Your task to perform on an android device: What's the news in Taiwan? Image 0: 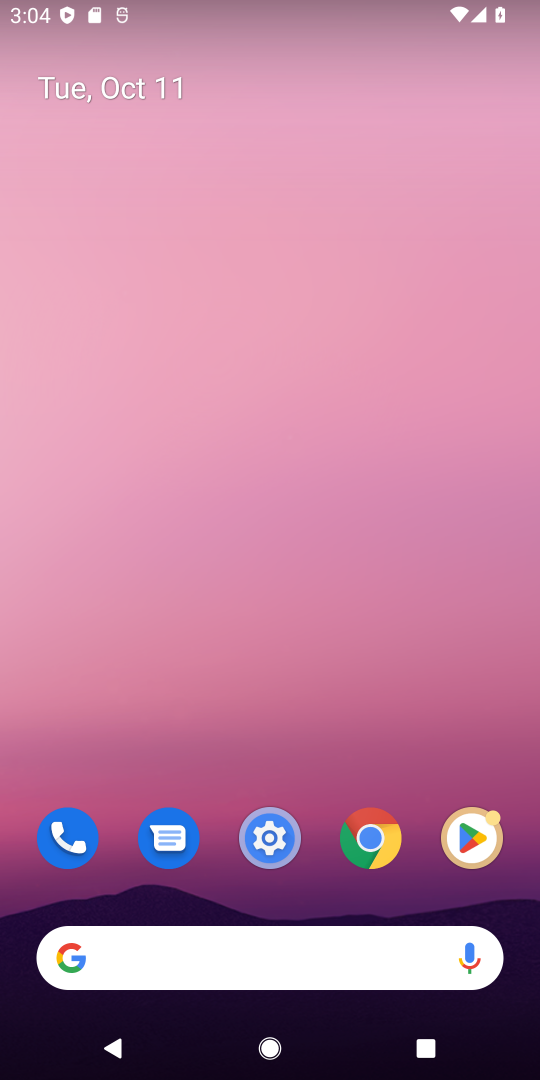
Step 0: click (253, 945)
Your task to perform on an android device: What's the news in Taiwan? Image 1: 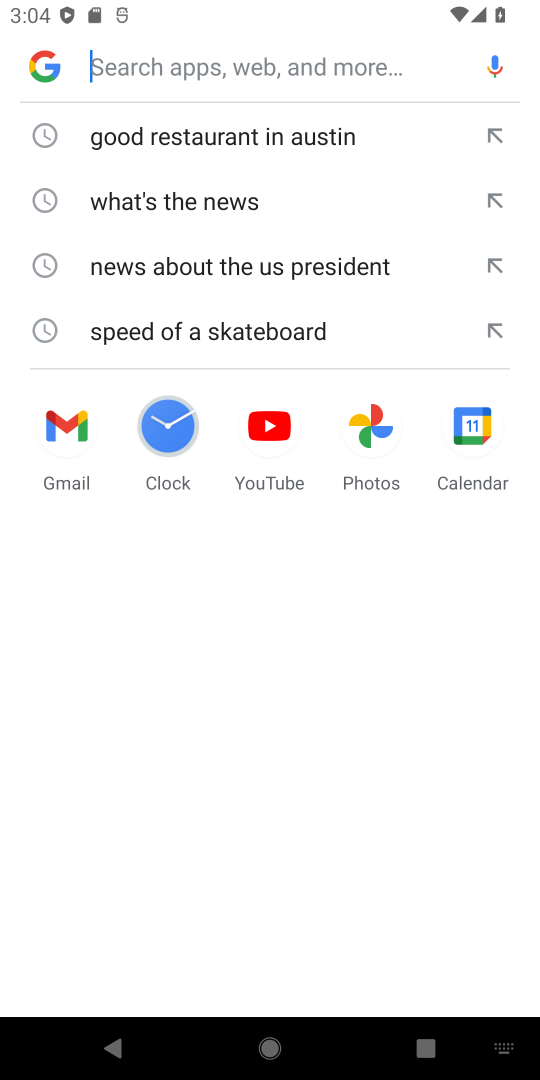
Step 1: type "news in Taiwan"
Your task to perform on an android device: What's the news in Taiwan? Image 2: 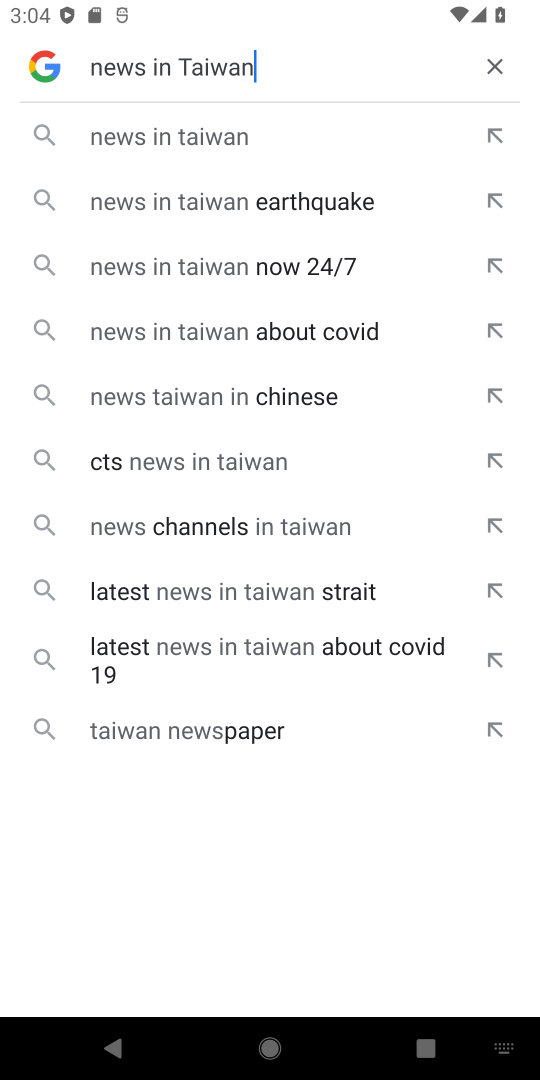
Step 2: type ""
Your task to perform on an android device: What's the news in Taiwan? Image 3: 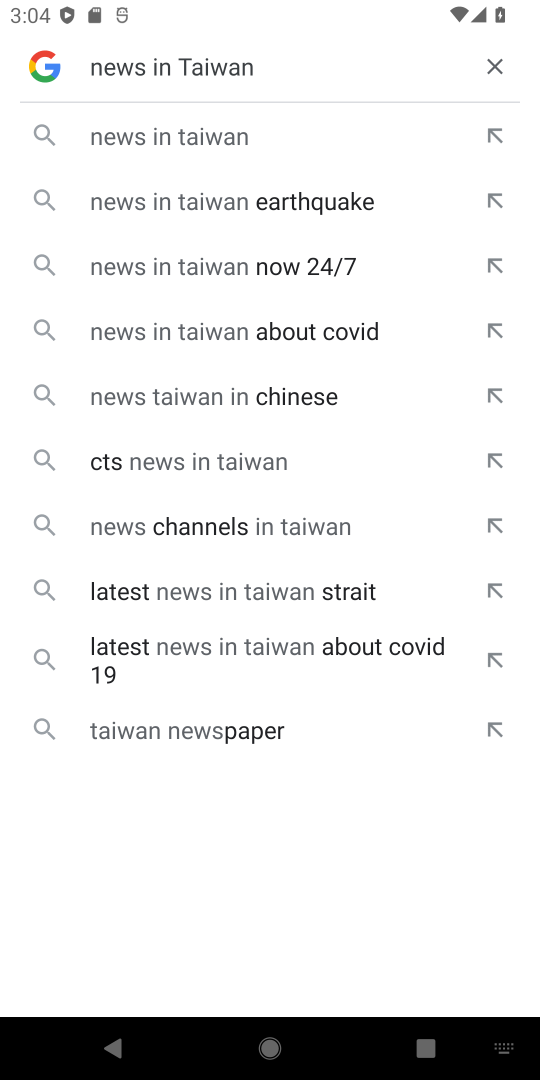
Step 3: click (274, 131)
Your task to perform on an android device: What's the news in Taiwan? Image 4: 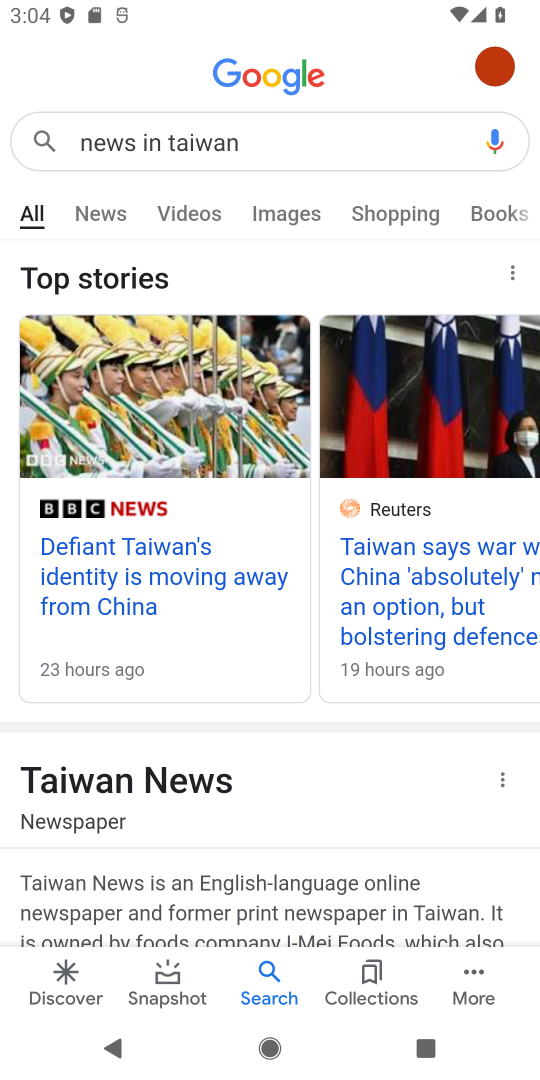
Step 4: click (123, 214)
Your task to perform on an android device: What's the news in Taiwan? Image 5: 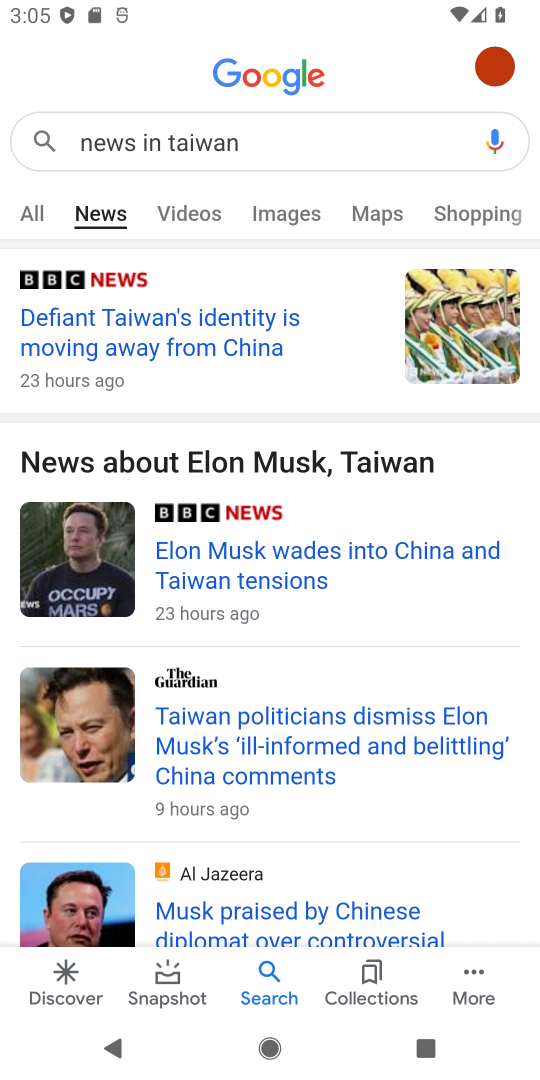
Step 5: task complete